Your task to perform on an android device: toggle notifications settings in the gmail app Image 0: 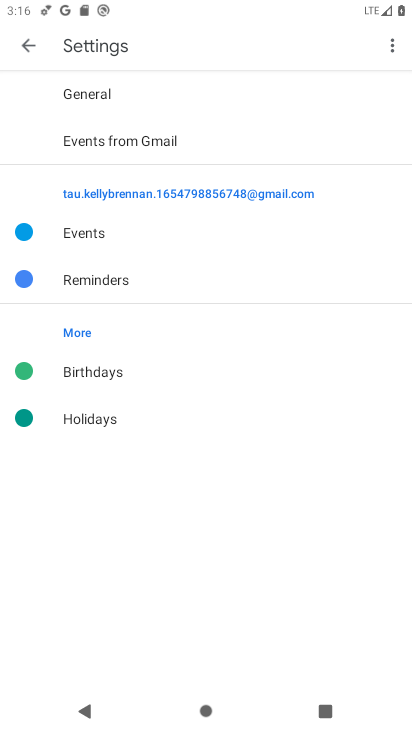
Step 0: press home button
Your task to perform on an android device: toggle notifications settings in the gmail app Image 1: 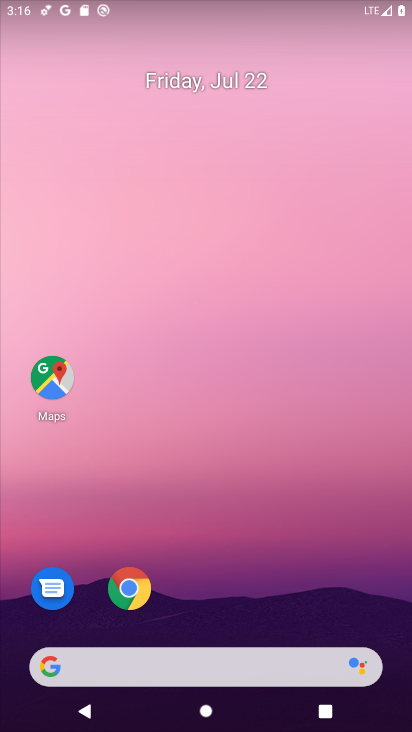
Step 1: drag from (236, 587) to (178, 47)
Your task to perform on an android device: toggle notifications settings in the gmail app Image 2: 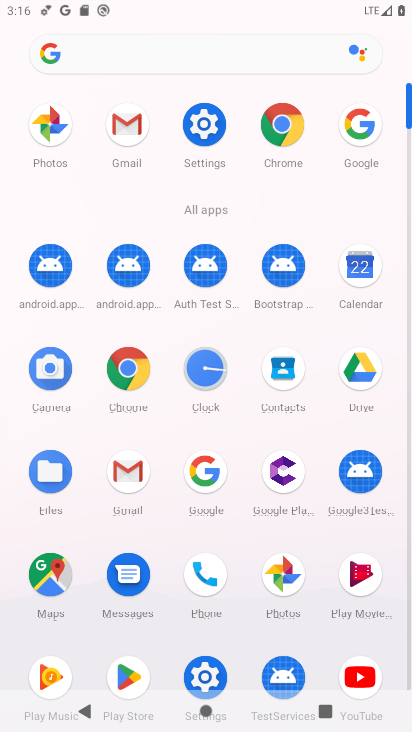
Step 2: click (124, 471)
Your task to perform on an android device: toggle notifications settings in the gmail app Image 3: 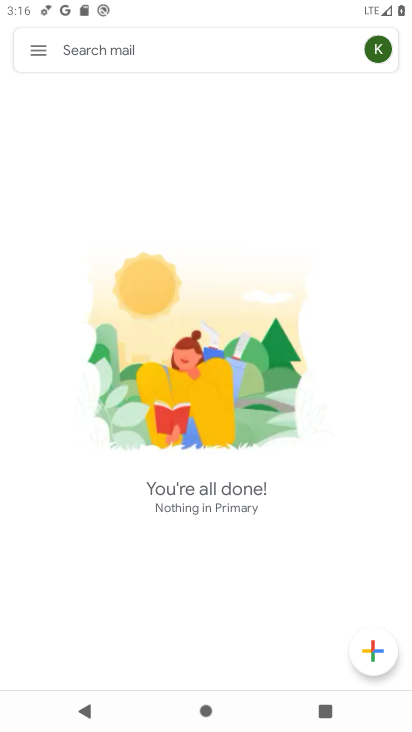
Step 3: press home button
Your task to perform on an android device: toggle notifications settings in the gmail app Image 4: 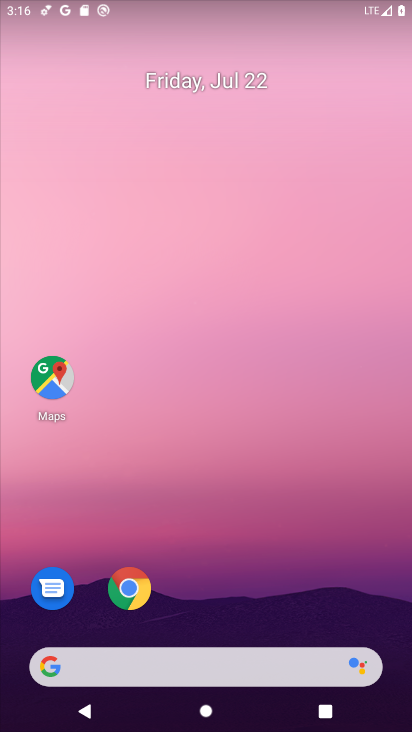
Step 4: drag from (190, 571) to (187, 28)
Your task to perform on an android device: toggle notifications settings in the gmail app Image 5: 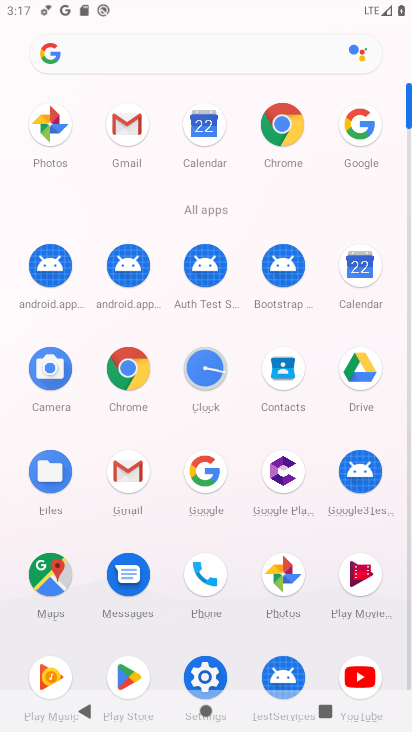
Step 5: click (121, 465)
Your task to perform on an android device: toggle notifications settings in the gmail app Image 6: 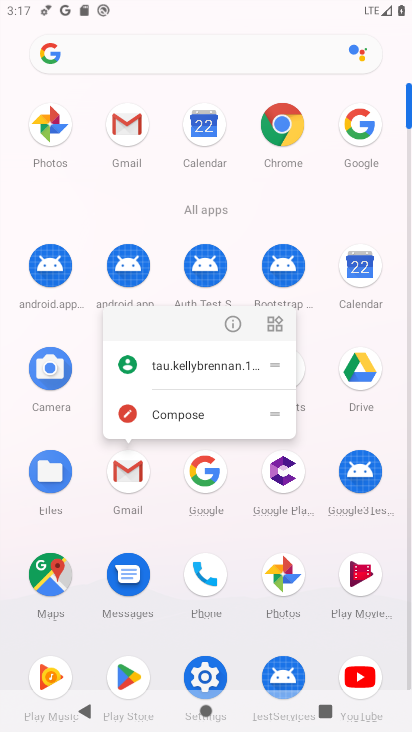
Step 6: click (228, 319)
Your task to perform on an android device: toggle notifications settings in the gmail app Image 7: 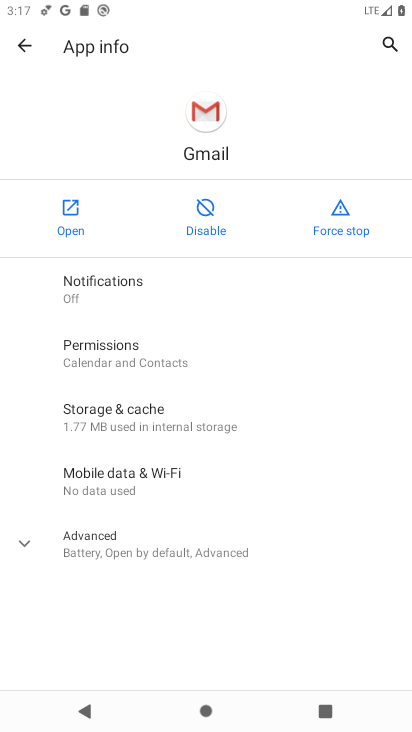
Step 7: click (145, 270)
Your task to perform on an android device: toggle notifications settings in the gmail app Image 8: 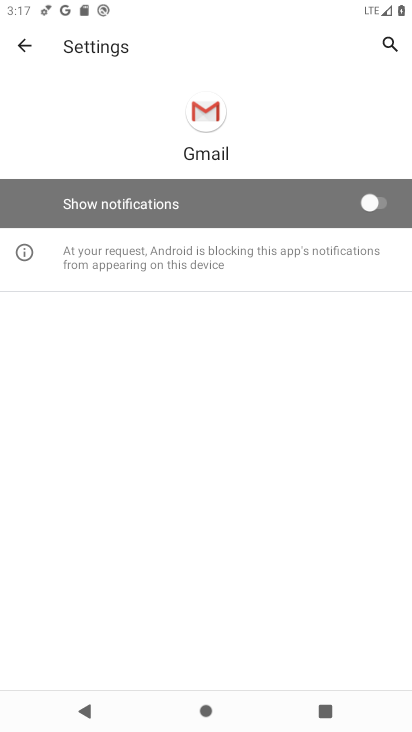
Step 8: click (300, 204)
Your task to perform on an android device: toggle notifications settings in the gmail app Image 9: 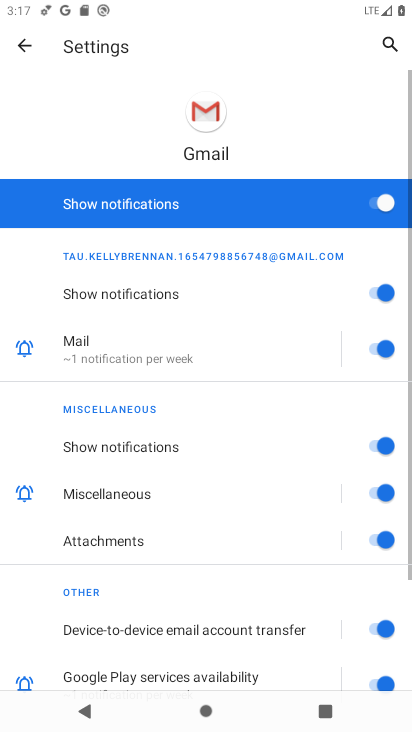
Step 9: task complete